Your task to perform on an android device: toggle improve location accuracy Image 0: 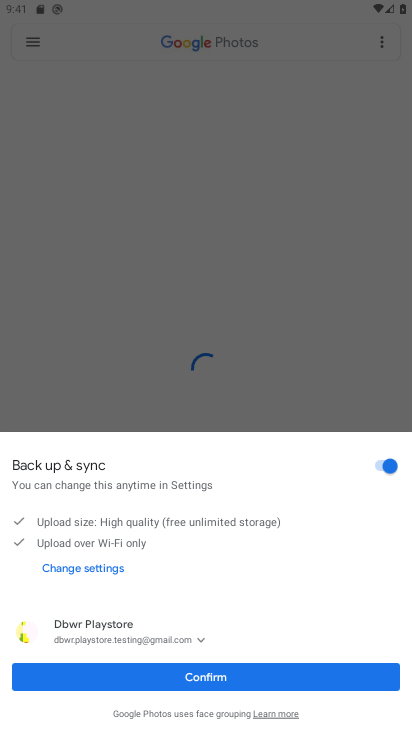
Step 0: press home button
Your task to perform on an android device: toggle improve location accuracy Image 1: 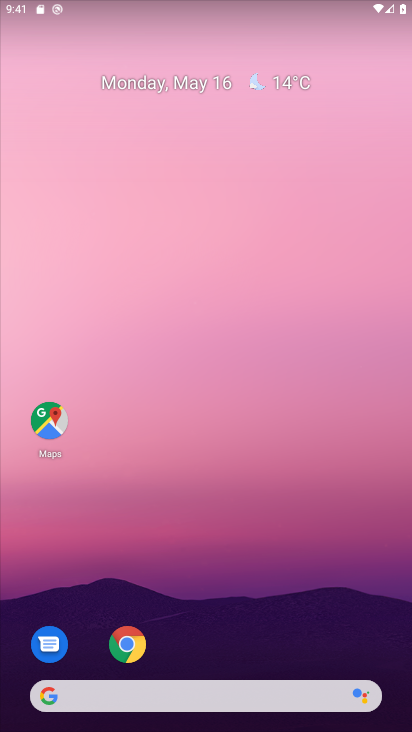
Step 1: drag from (370, 613) to (296, 192)
Your task to perform on an android device: toggle improve location accuracy Image 2: 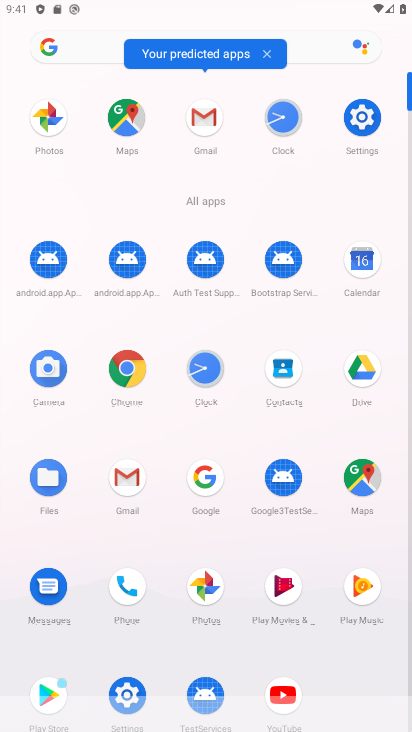
Step 2: click (127, 682)
Your task to perform on an android device: toggle improve location accuracy Image 3: 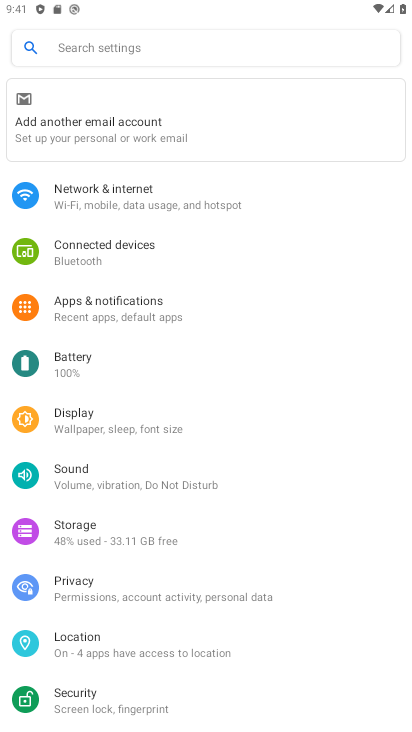
Step 3: click (120, 650)
Your task to perform on an android device: toggle improve location accuracy Image 4: 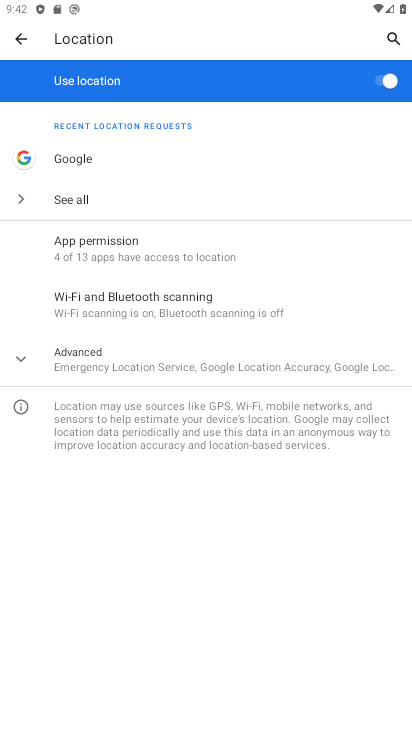
Step 4: click (131, 366)
Your task to perform on an android device: toggle improve location accuracy Image 5: 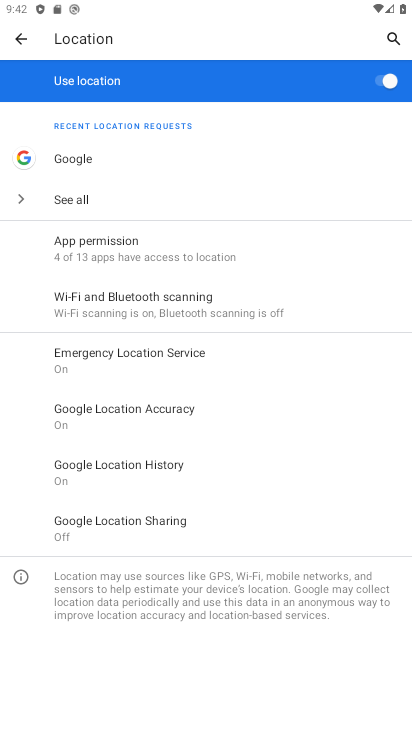
Step 5: click (166, 409)
Your task to perform on an android device: toggle improve location accuracy Image 6: 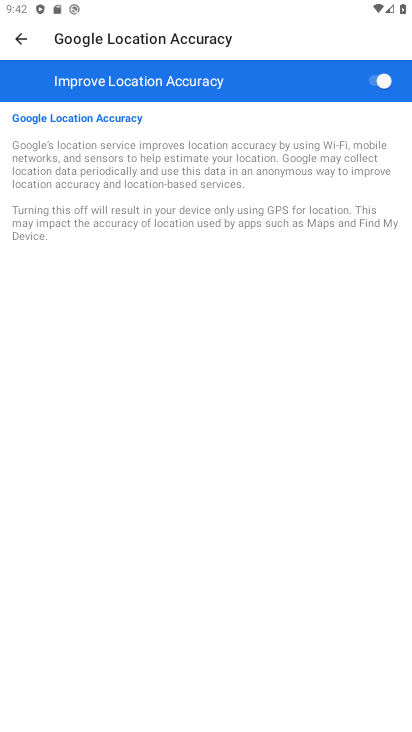
Step 6: click (375, 82)
Your task to perform on an android device: toggle improve location accuracy Image 7: 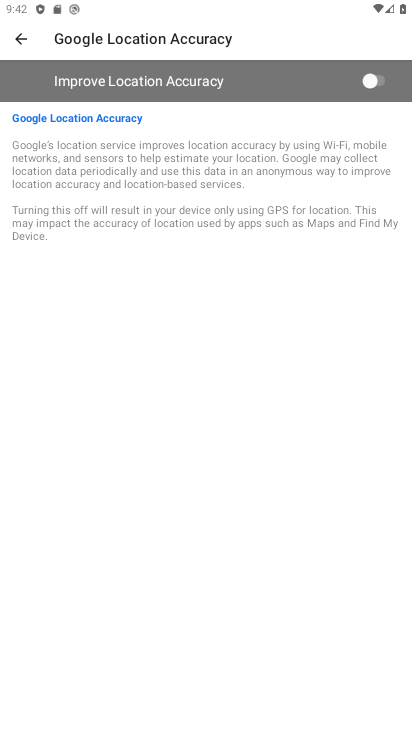
Step 7: task complete